Your task to perform on an android device: Do I have any events this weekend? Image 0: 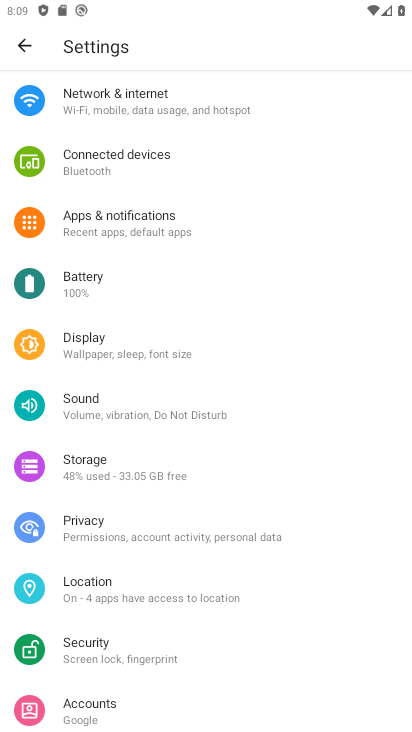
Step 0: press home button
Your task to perform on an android device: Do I have any events this weekend? Image 1: 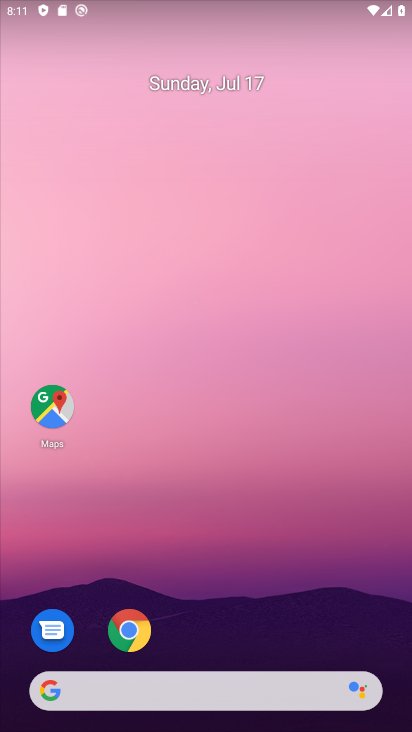
Step 1: drag from (242, 615) to (172, 122)
Your task to perform on an android device: Do I have any events this weekend? Image 2: 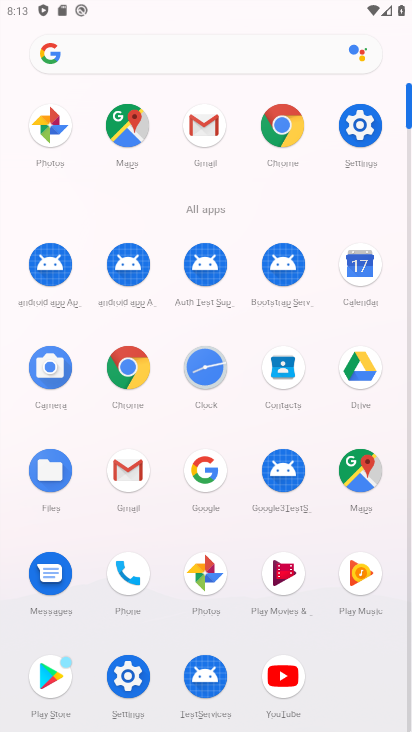
Step 2: click (357, 262)
Your task to perform on an android device: Do I have any events this weekend? Image 3: 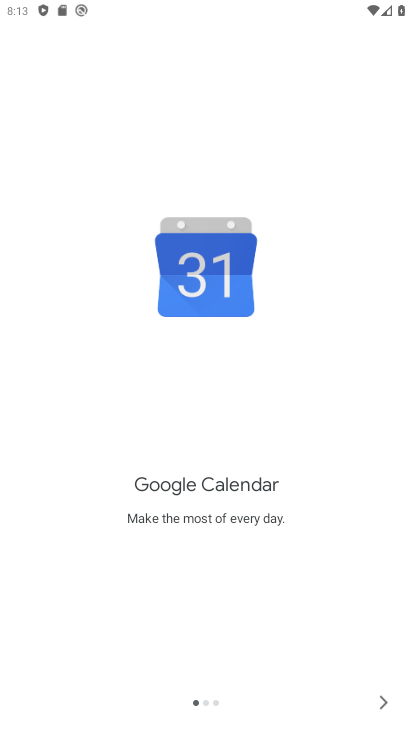
Step 3: task complete